Your task to perform on an android device: Turn on the flashlight Image 0: 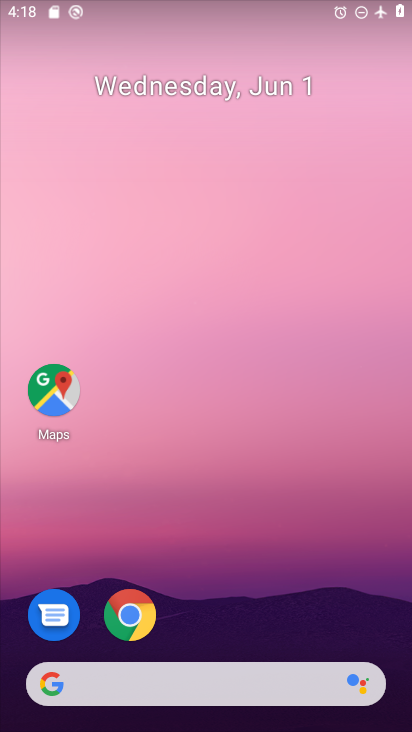
Step 0: drag from (223, 637) to (247, 135)
Your task to perform on an android device: Turn on the flashlight Image 1: 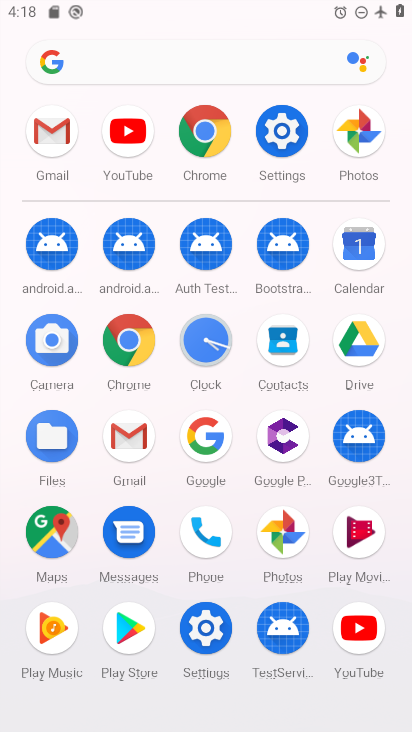
Step 1: click (280, 130)
Your task to perform on an android device: Turn on the flashlight Image 2: 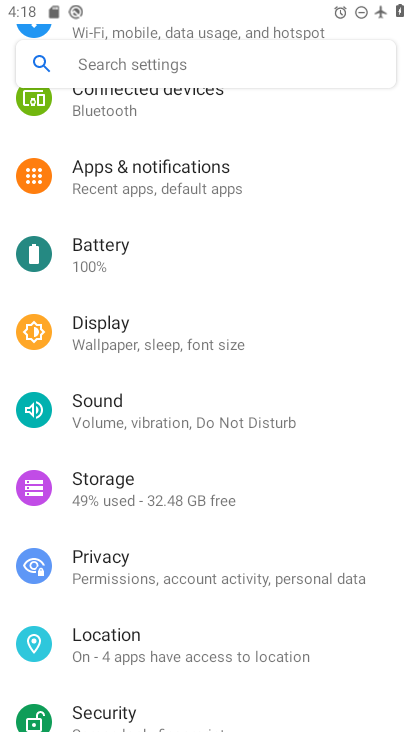
Step 2: click (142, 68)
Your task to perform on an android device: Turn on the flashlight Image 3: 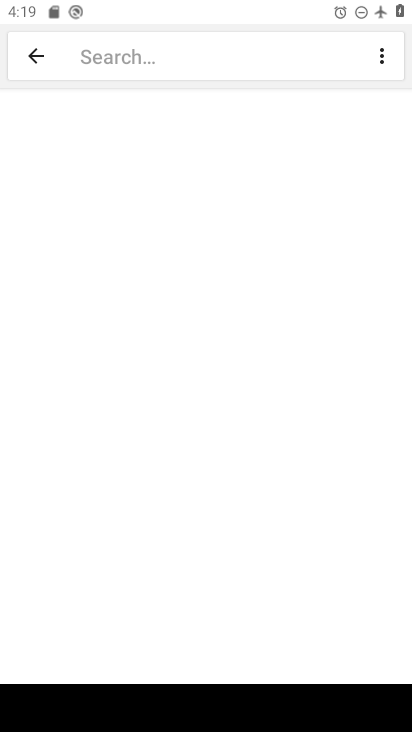
Step 3: type "flashlight"
Your task to perform on an android device: Turn on the flashlight Image 4: 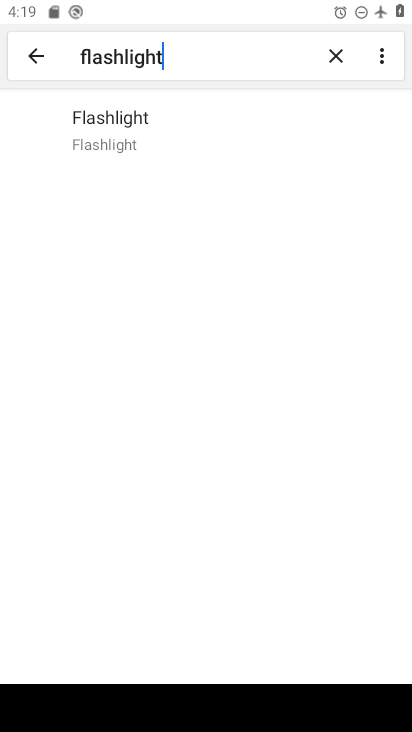
Step 4: click (166, 123)
Your task to perform on an android device: Turn on the flashlight Image 5: 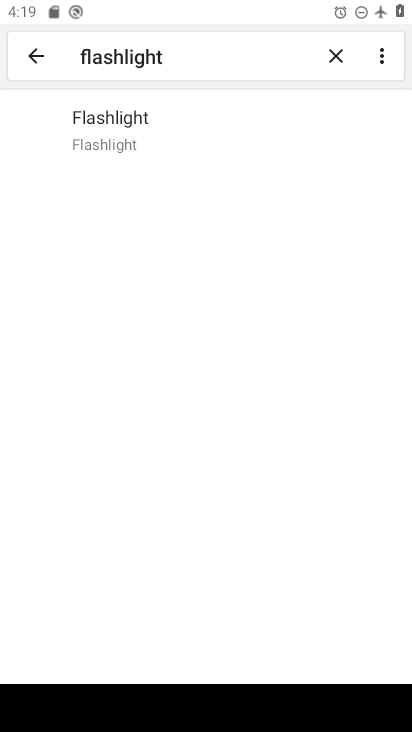
Step 5: click (166, 135)
Your task to perform on an android device: Turn on the flashlight Image 6: 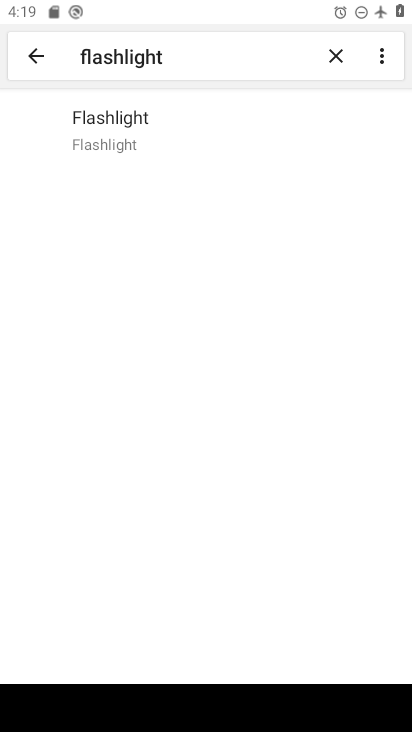
Step 6: task complete